Your task to perform on an android device: turn smart compose on in the gmail app Image 0: 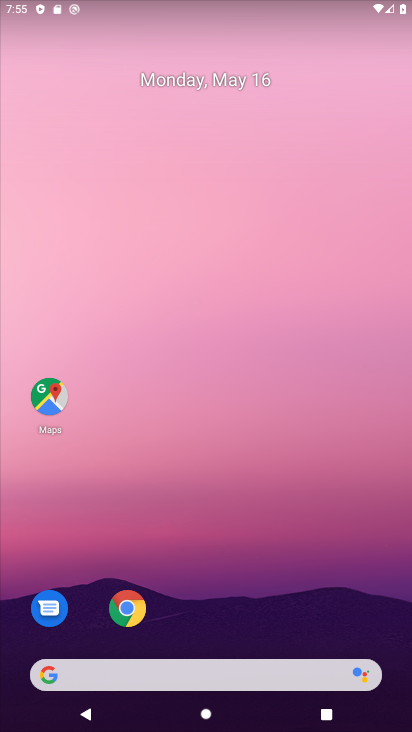
Step 0: press home button
Your task to perform on an android device: turn smart compose on in the gmail app Image 1: 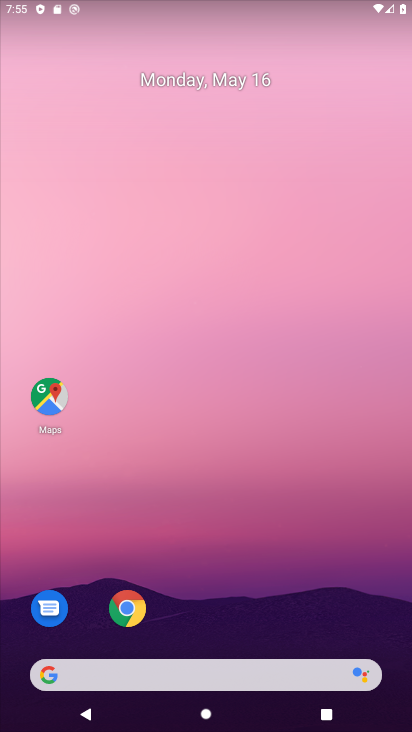
Step 1: click (122, 609)
Your task to perform on an android device: turn smart compose on in the gmail app Image 2: 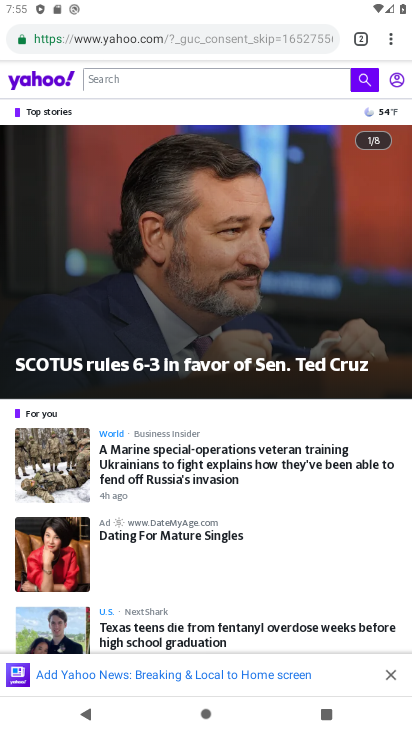
Step 2: press home button
Your task to perform on an android device: turn smart compose on in the gmail app Image 3: 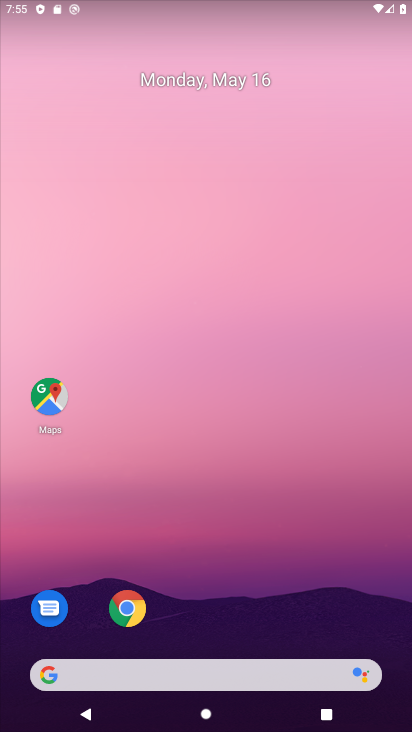
Step 3: drag from (13, 567) to (294, 5)
Your task to perform on an android device: turn smart compose on in the gmail app Image 4: 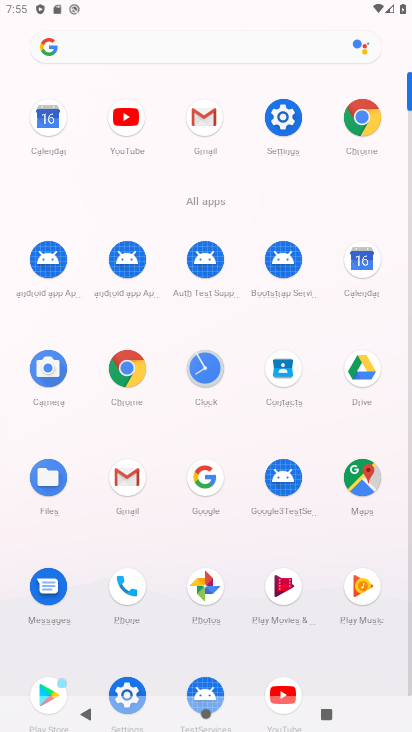
Step 4: click (202, 119)
Your task to perform on an android device: turn smart compose on in the gmail app Image 5: 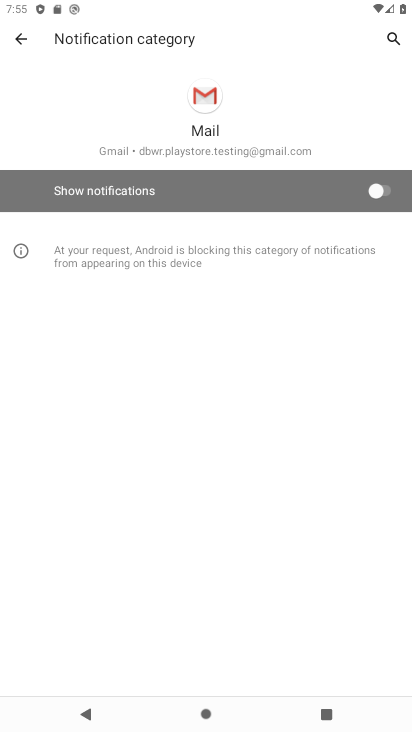
Step 5: click (19, 34)
Your task to perform on an android device: turn smart compose on in the gmail app Image 6: 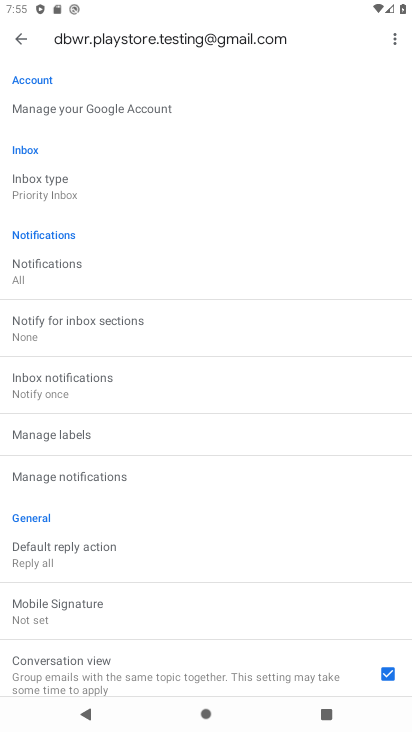
Step 6: drag from (103, 133) to (145, 569)
Your task to perform on an android device: turn smart compose on in the gmail app Image 7: 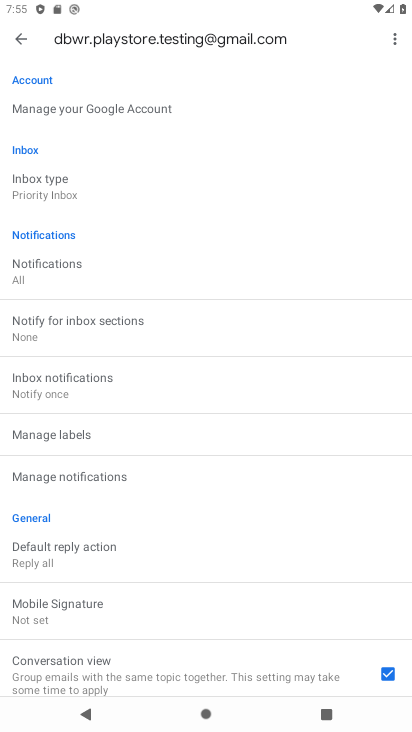
Step 7: drag from (183, 581) to (280, 78)
Your task to perform on an android device: turn smart compose on in the gmail app Image 8: 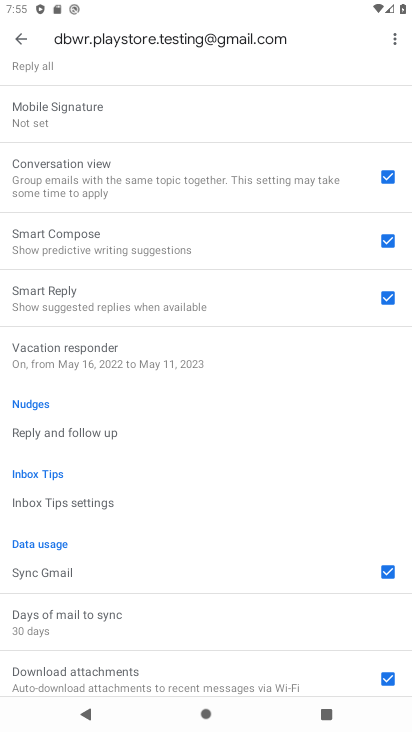
Step 8: click (390, 243)
Your task to perform on an android device: turn smart compose on in the gmail app Image 9: 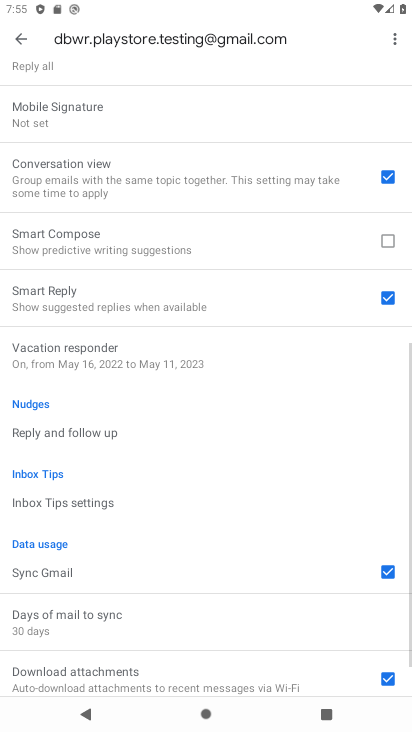
Step 9: task complete